Your task to perform on an android device: What is the recent news? Image 0: 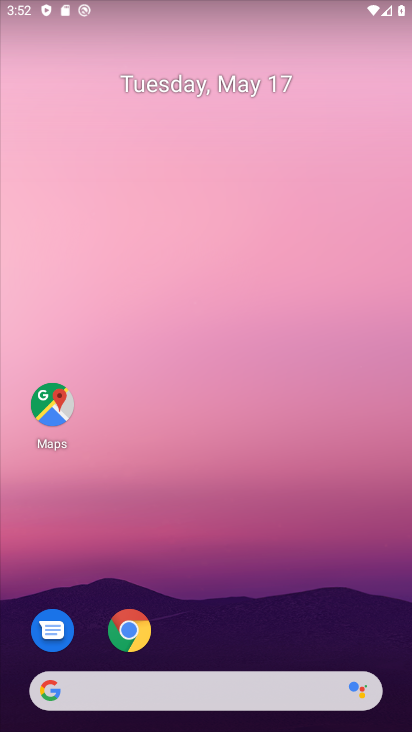
Step 0: drag from (5, 294) to (410, 301)
Your task to perform on an android device: What is the recent news? Image 1: 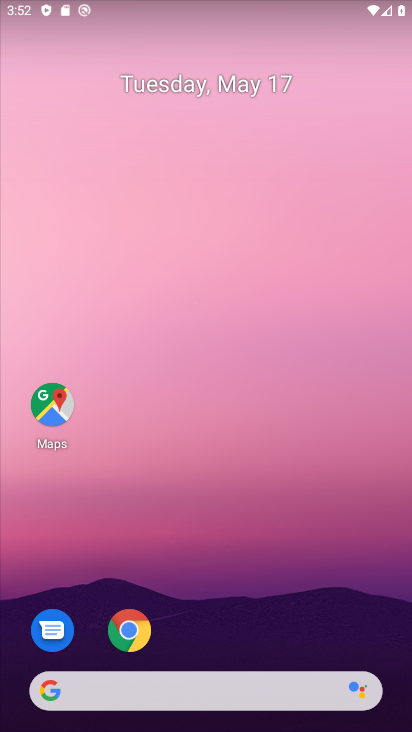
Step 1: task complete